Your task to perform on an android device: What's the weather going to be this weekend? Image 0: 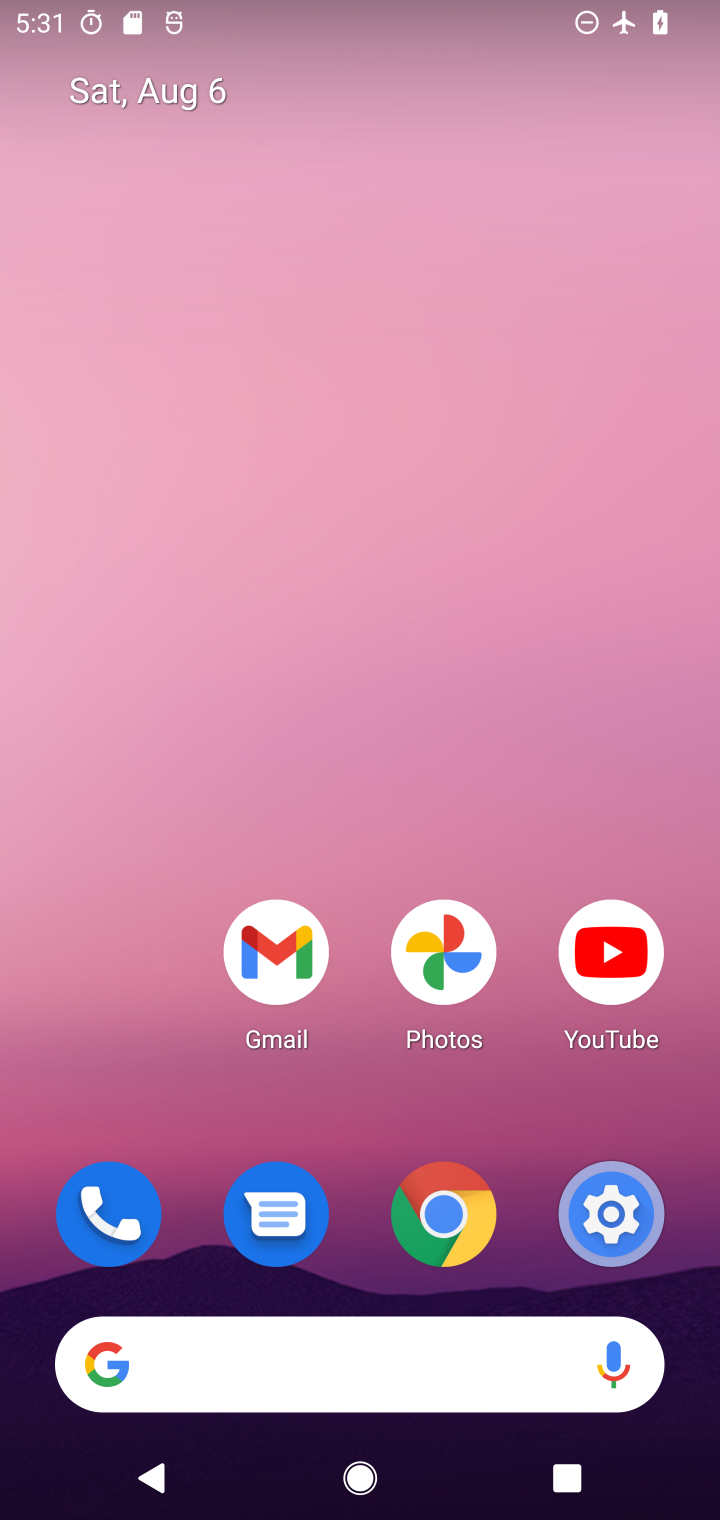
Step 0: drag from (354, 997) to (382, 535)
Your task to perform on an android device: What's the weather going to be this weekend? Image 1: 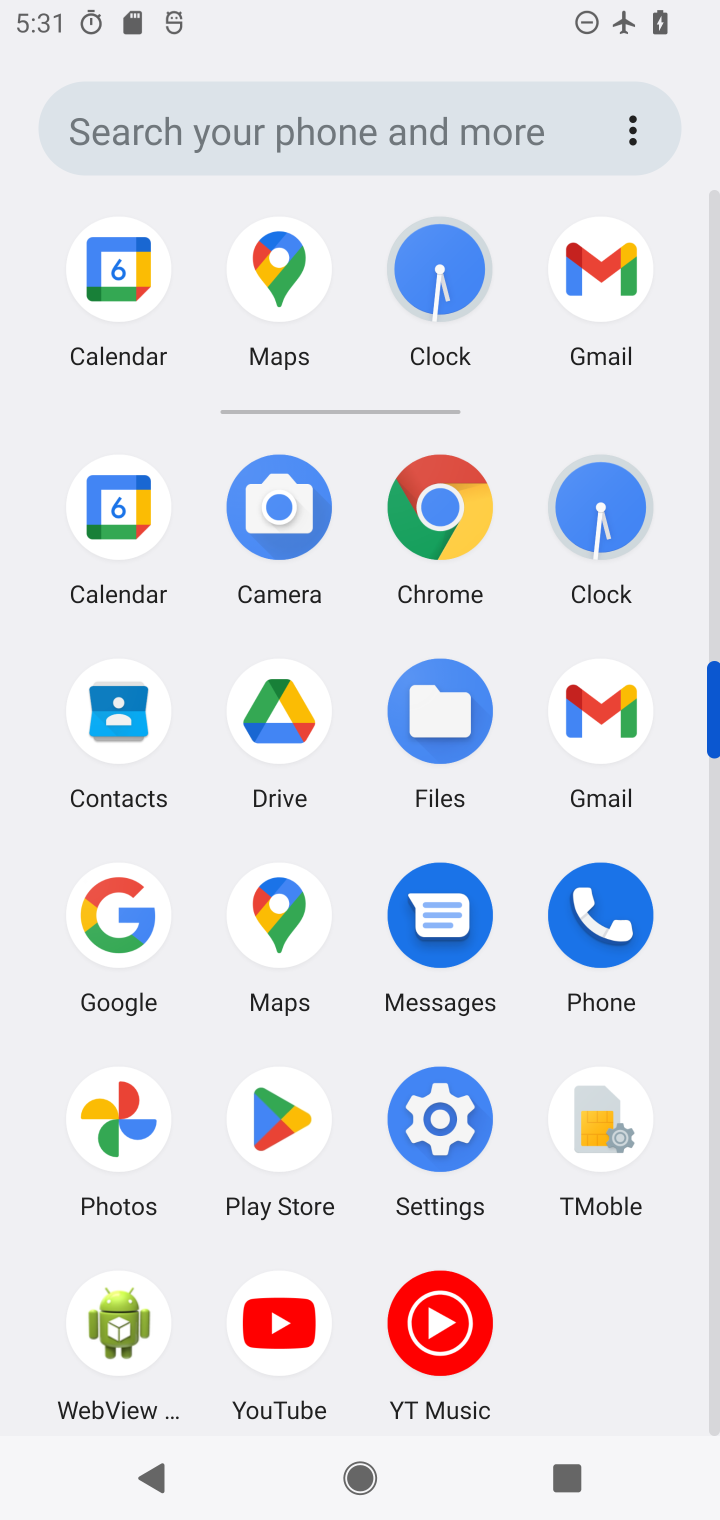
Step 1: click (121, 940)
Your task to perform on an android device: What's the weather going to be this weekend? Image 2: 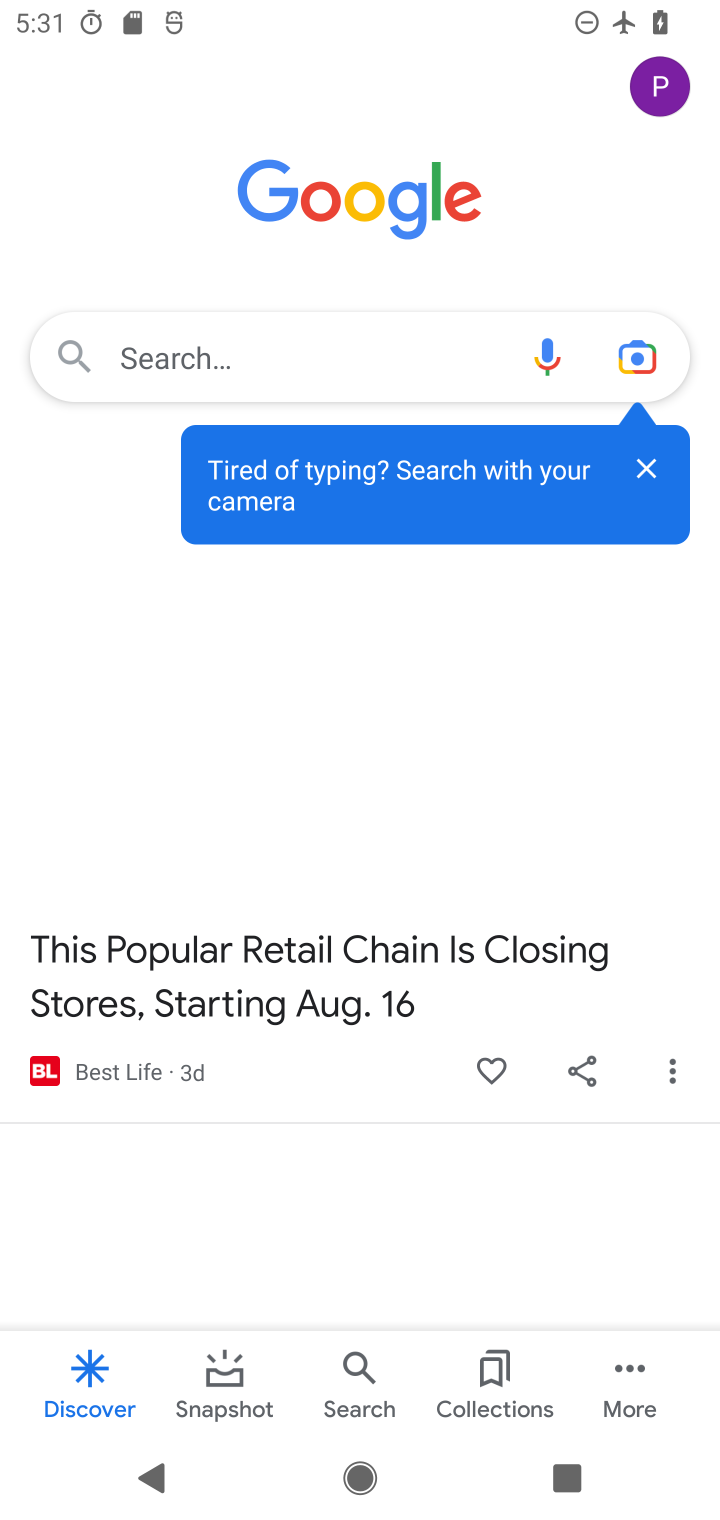
Step 2: click (257, 346)
Your task to perform on an android device: What's the weather going to be this weekend? Image 3: 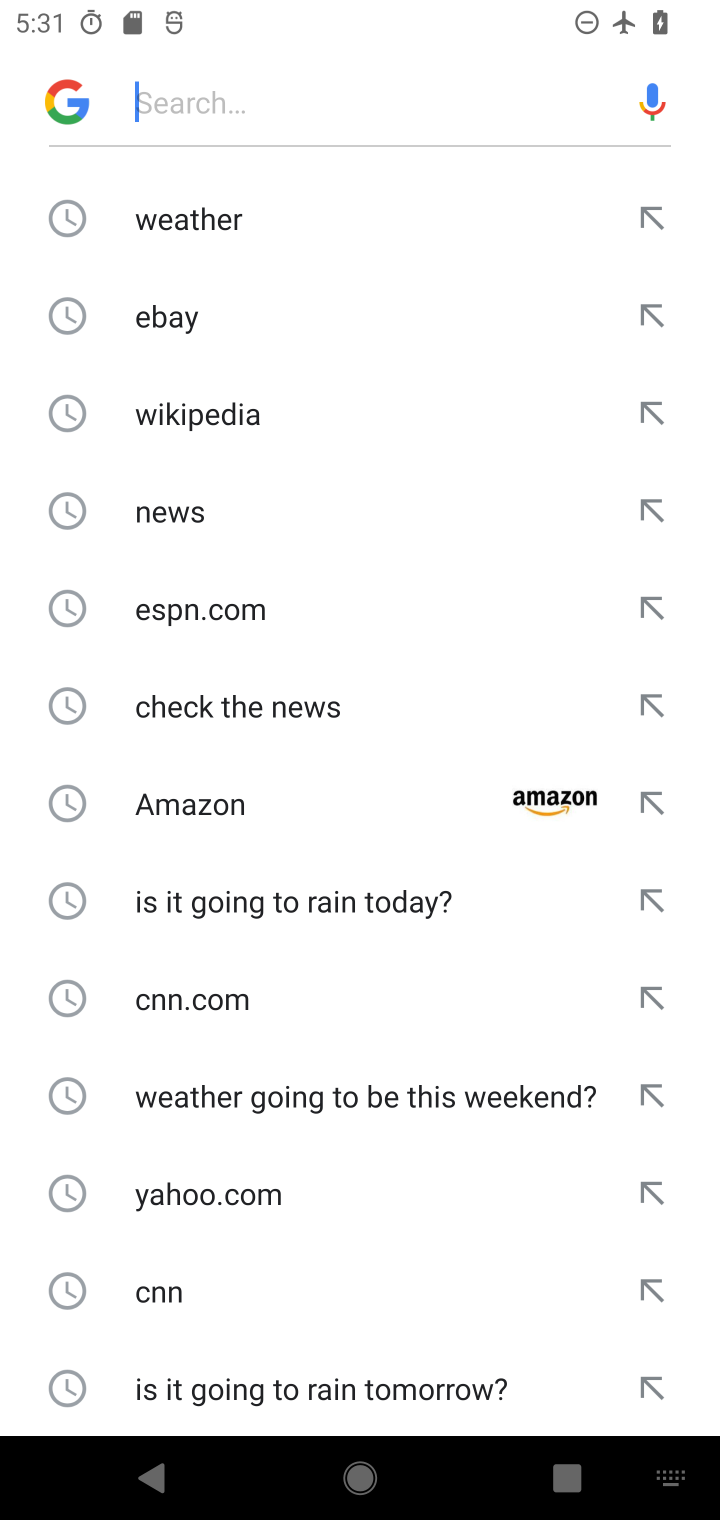
Step 3: click (196, 241)
Your task to perform on an android device: What's the weather going to be this weekend? Image 4: 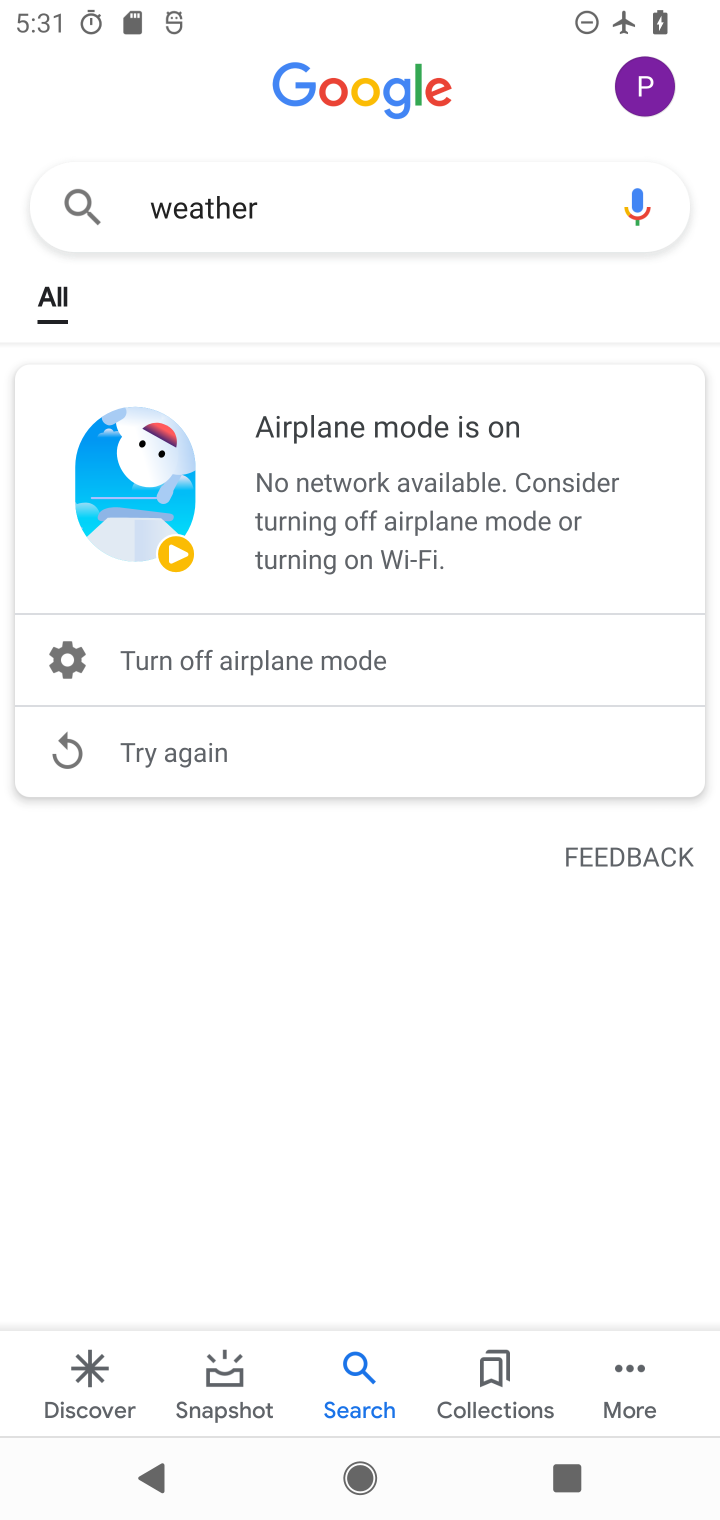
Step 4: press back button
Your task to perform on an android device: What's the weather going to be this weekend? Image 5: 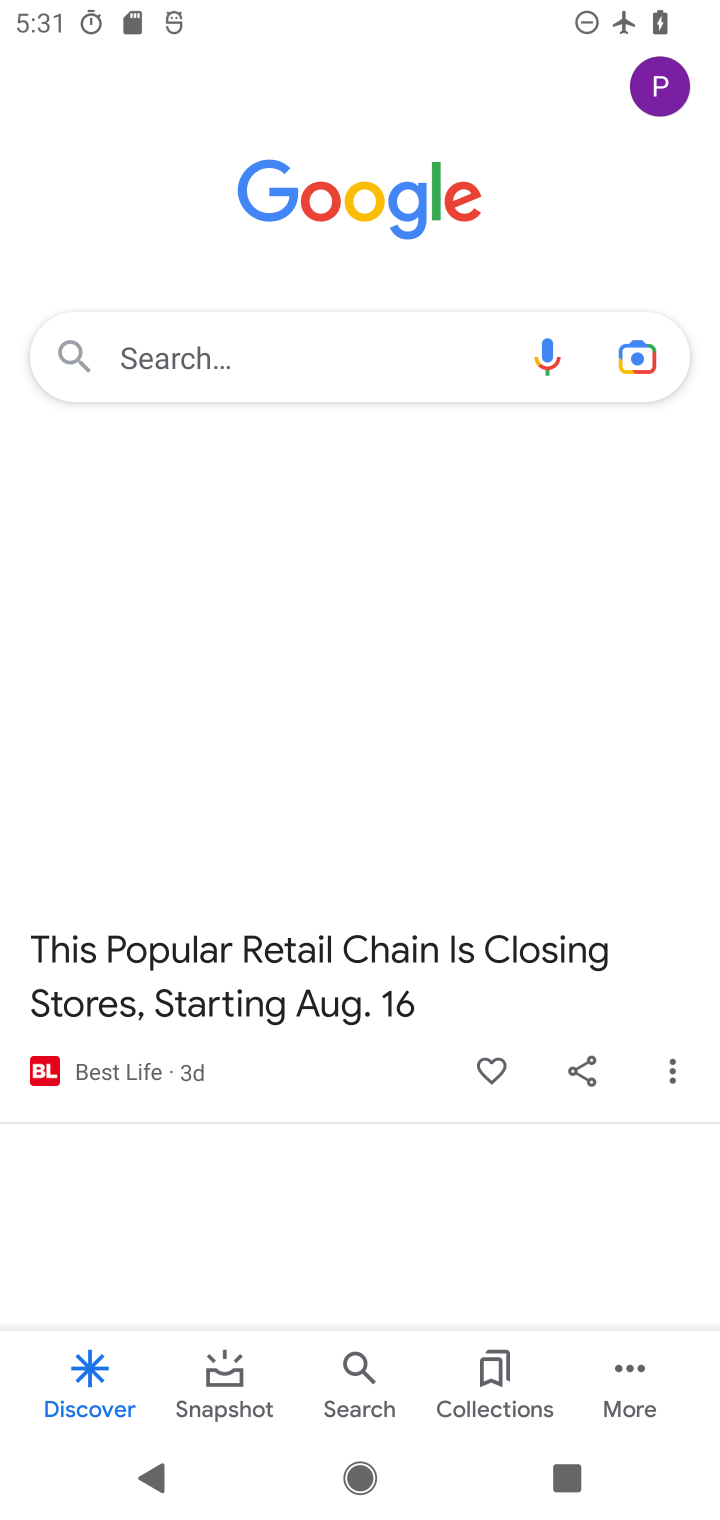
Step 5: press back button
Your task to perform on an android device: What's the weather going to be this weekend? Image 6: 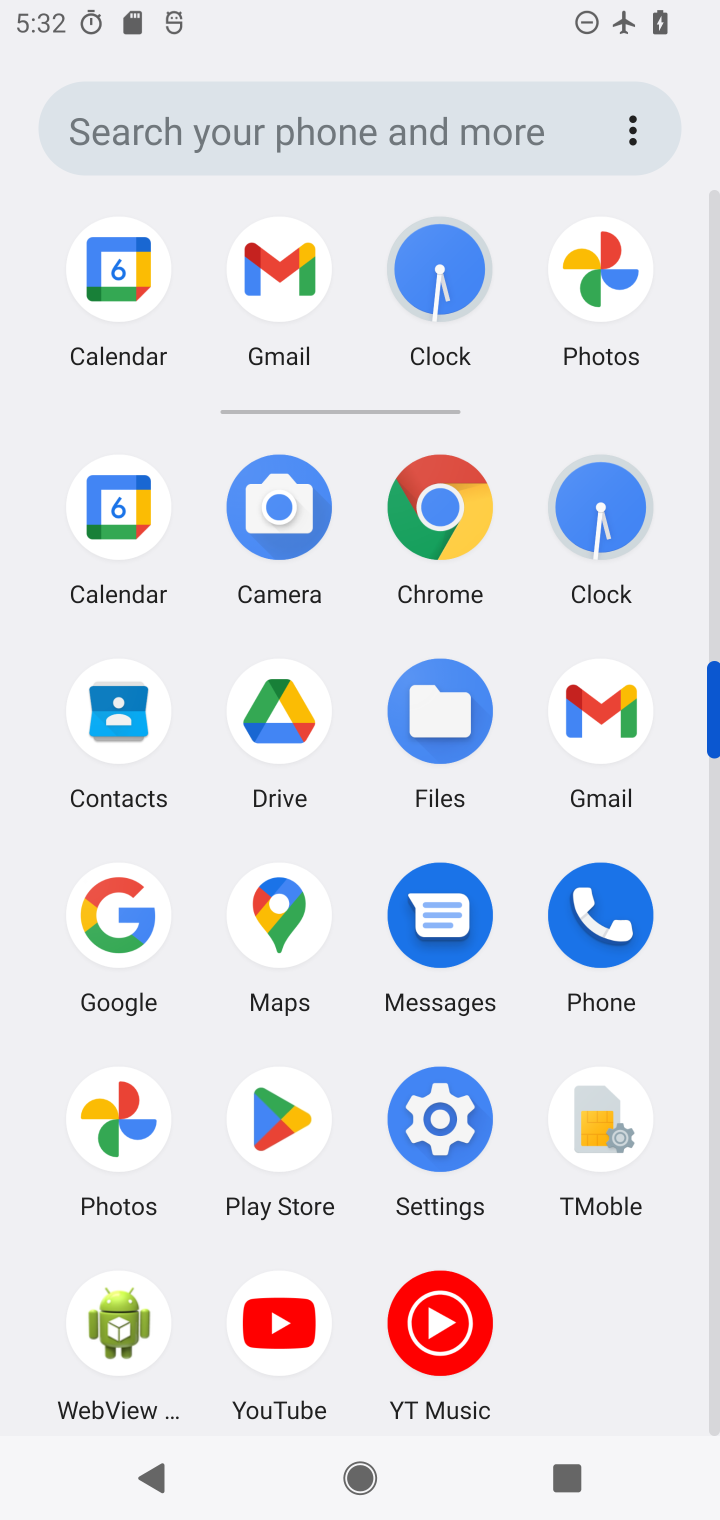
Step 6: click (421, 1128)
Your task to perform on an android device: What's the weather going to be this weekend? Image 7: 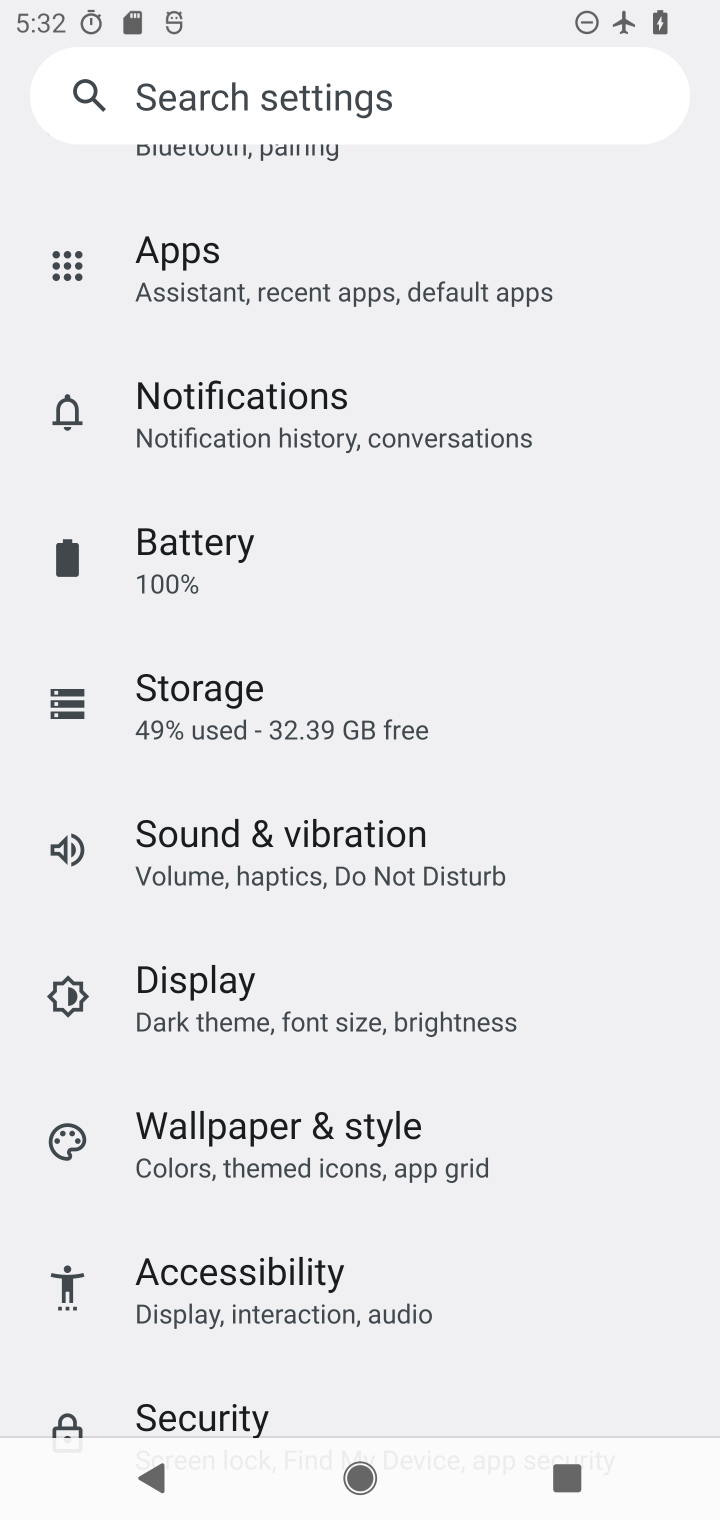
Step 7: drag from (372, 1346) to (382, 1461)
Your task to perform on an android device: What's the weather going to be this weekend? Image 8: 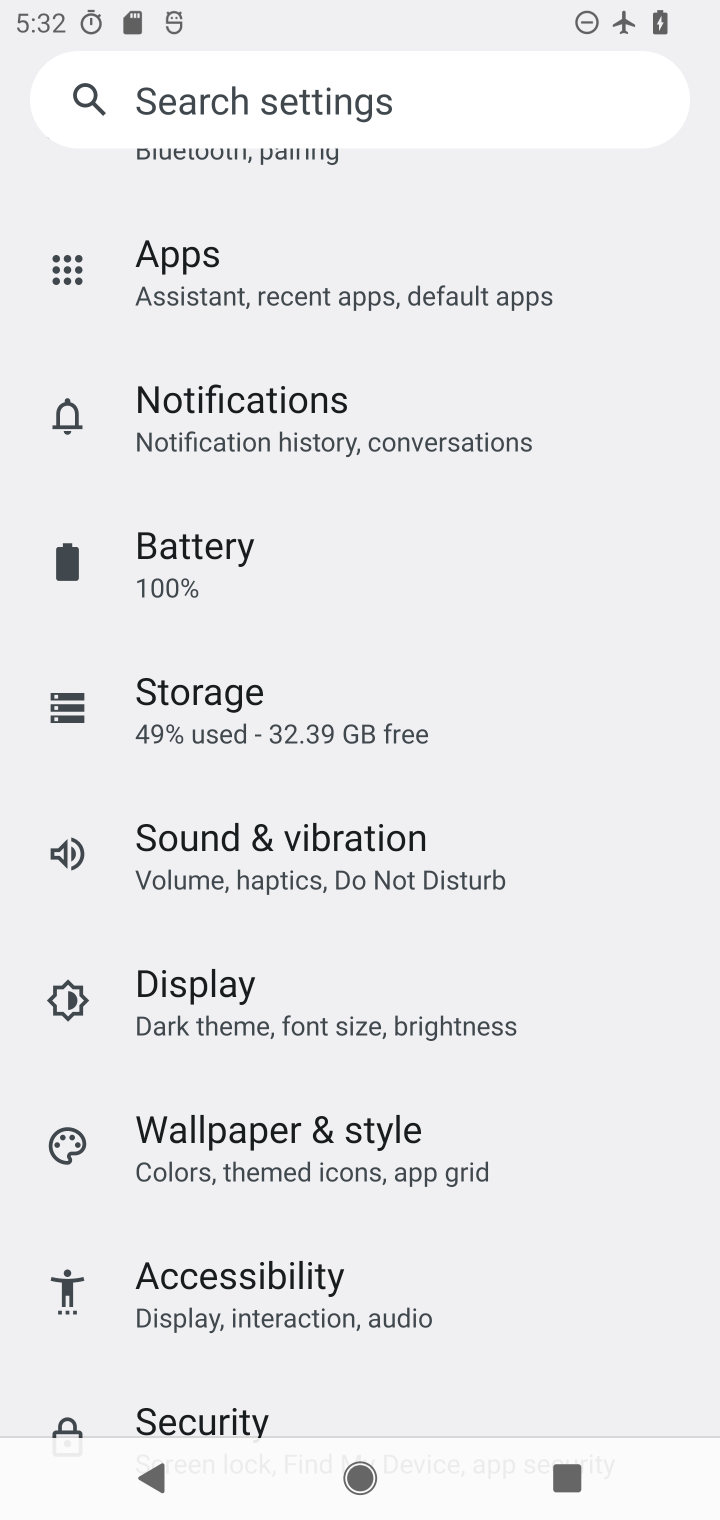
Step 8: drag from (467, 1226) to (465, 1492)
Your task to perform on an android device: What's the weather going to be this weekend? Image 9: 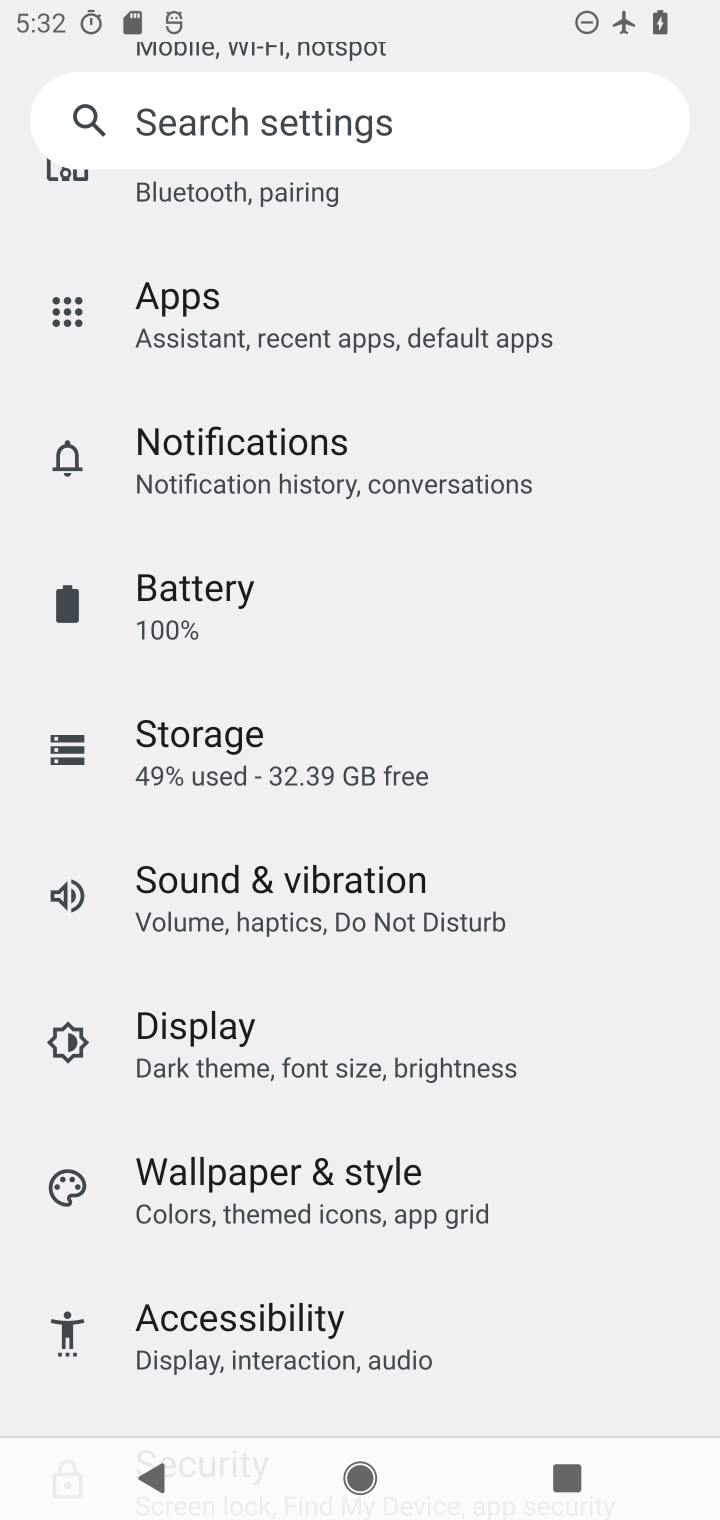
Step 9: drag from (325, 392) to (459, 1339)
Your task to perform on an android device: What's the weather going to be this weekend? Image 10: 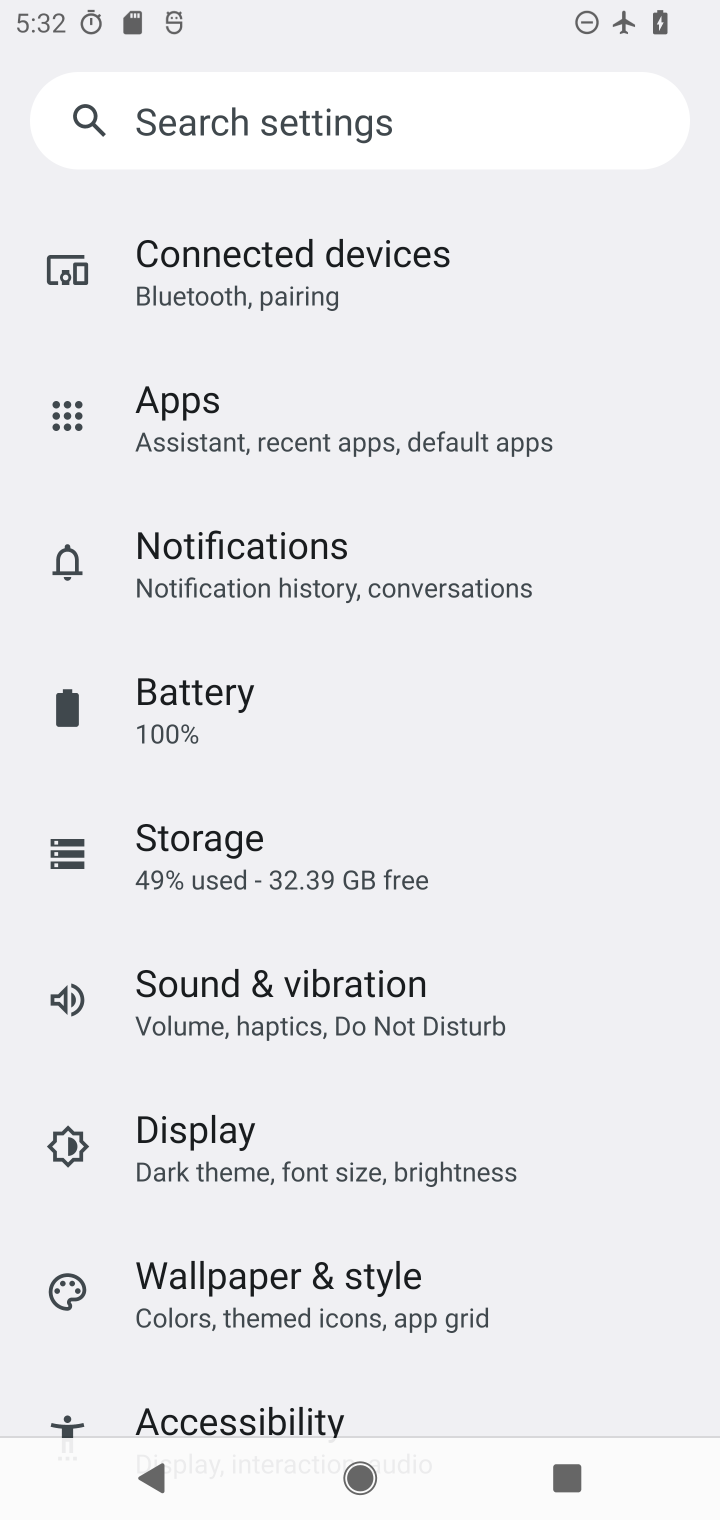
Step 10: drag from (385, 422) to (337, 1294)
Your task to perform on an android device: What's the weather going to be this weekend? Image 11: 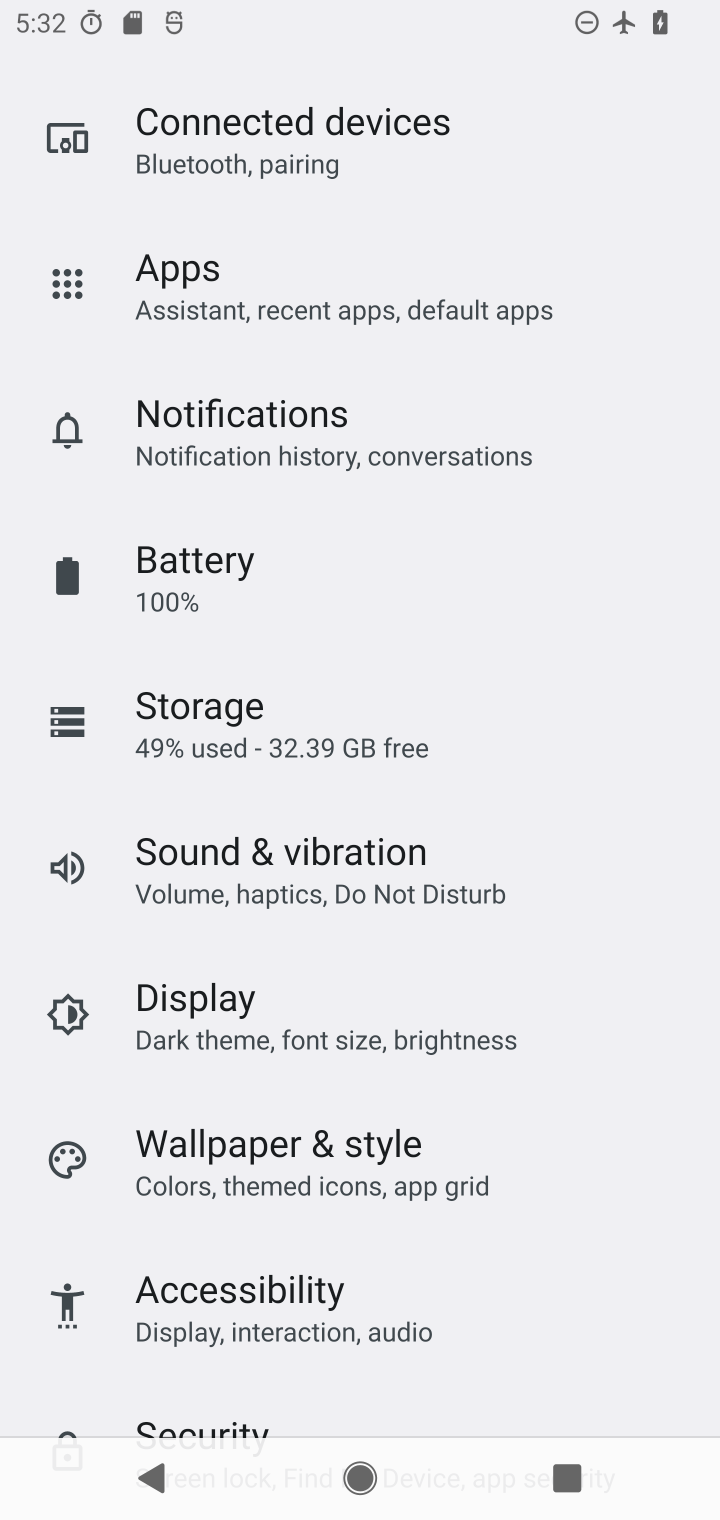
Step 11: drag from (287, 407) to (375, 1492)
Your task to perform on an android device: What's the weather going to be this weekend? Image 12: 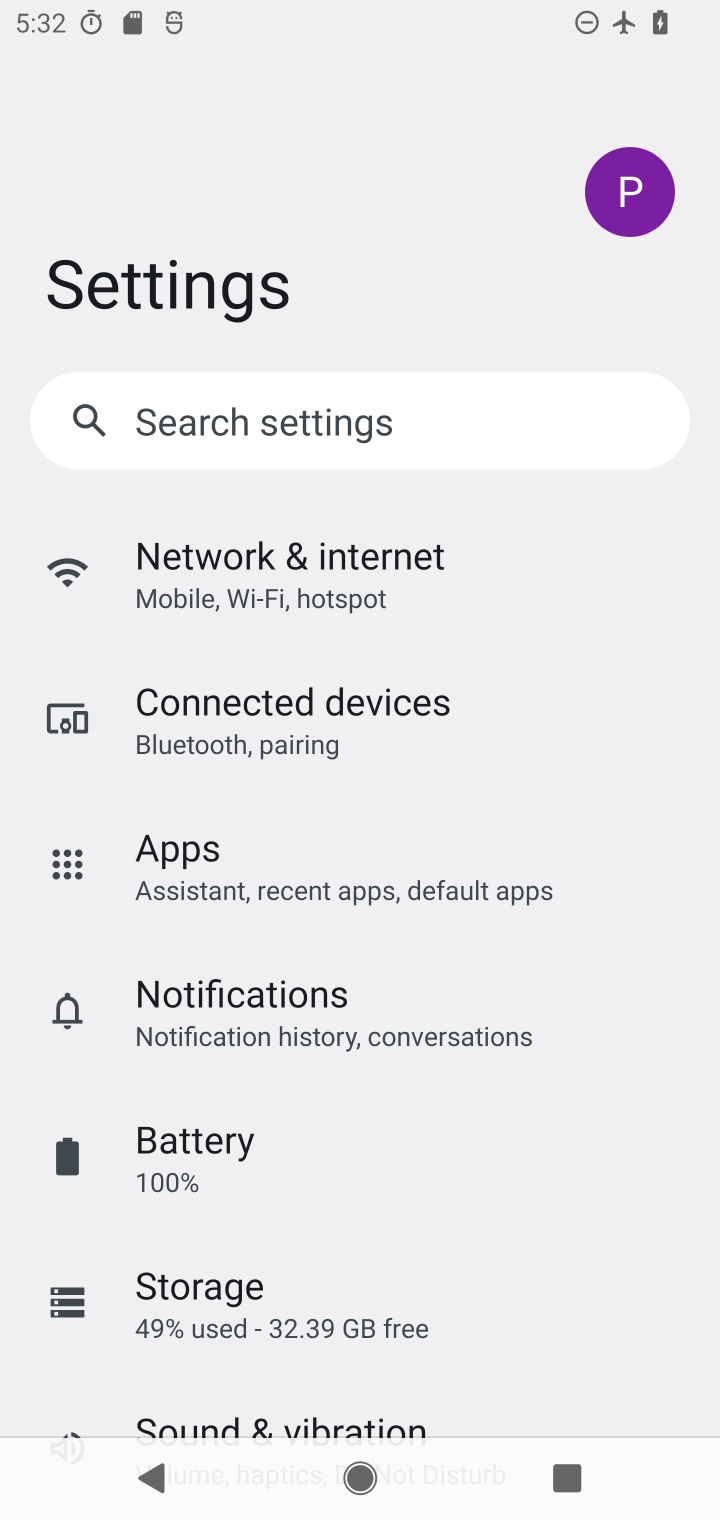
Step 12: click (264, 569)
Your task to perform on an android device: What's the weather going to be this weekend? Image 13: 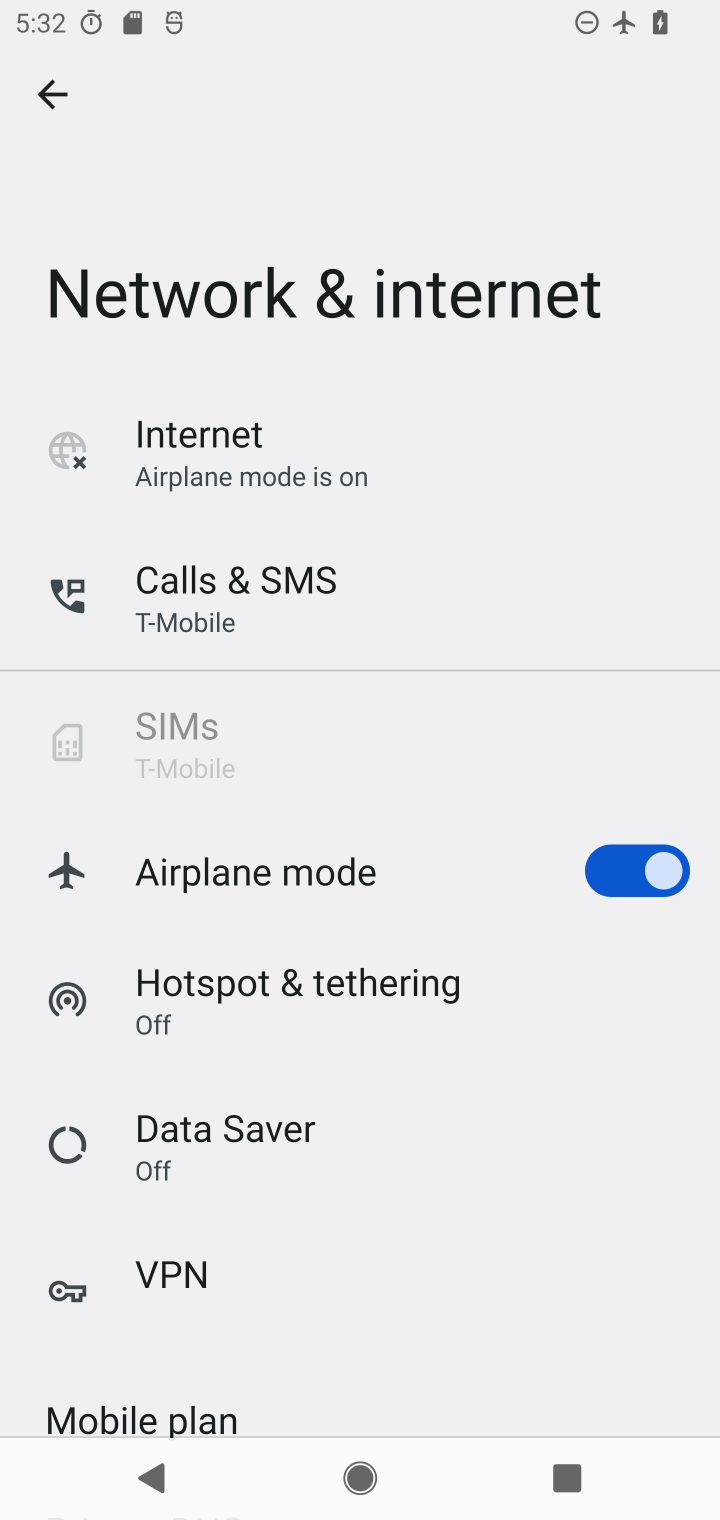
Step 13: click (588, 886)
Your task to perform on an android device: What's the weather going to be this weekend? Image 14: 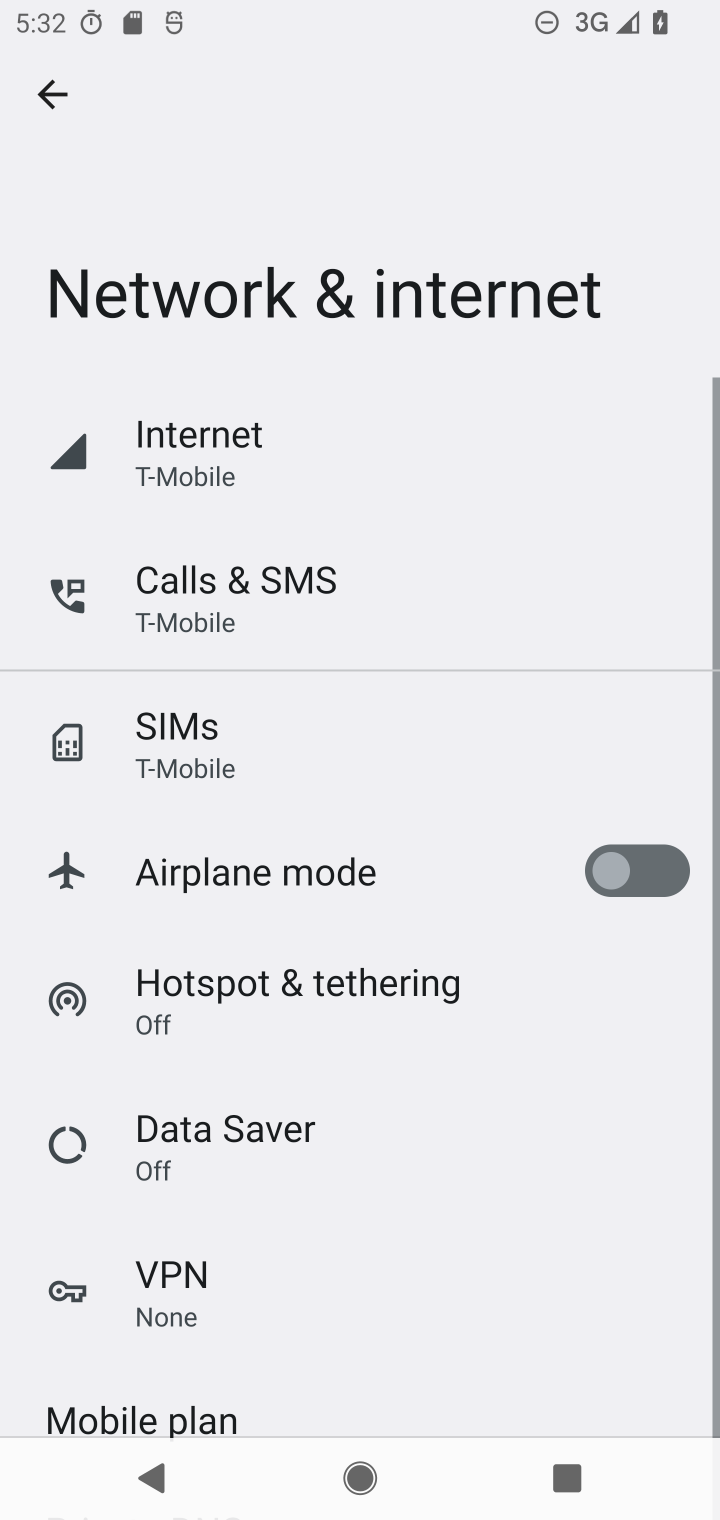
Step 14: press home button
Your task to perform on an android device: What's the weather going to be this weekend? Image 15: 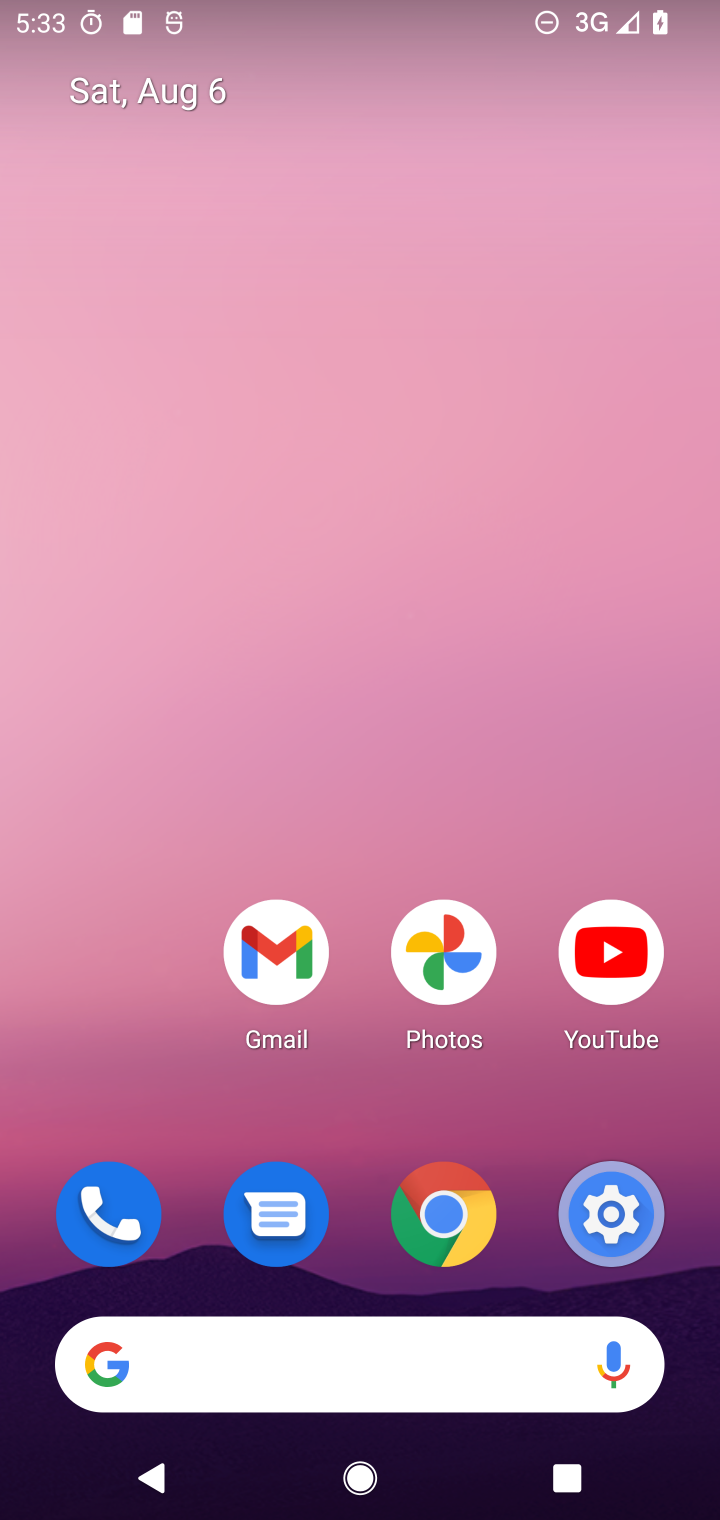
Step 15: click (259, 1386)
Your task to perform on an android device: What's the weather going to be this weekend? Image 16: 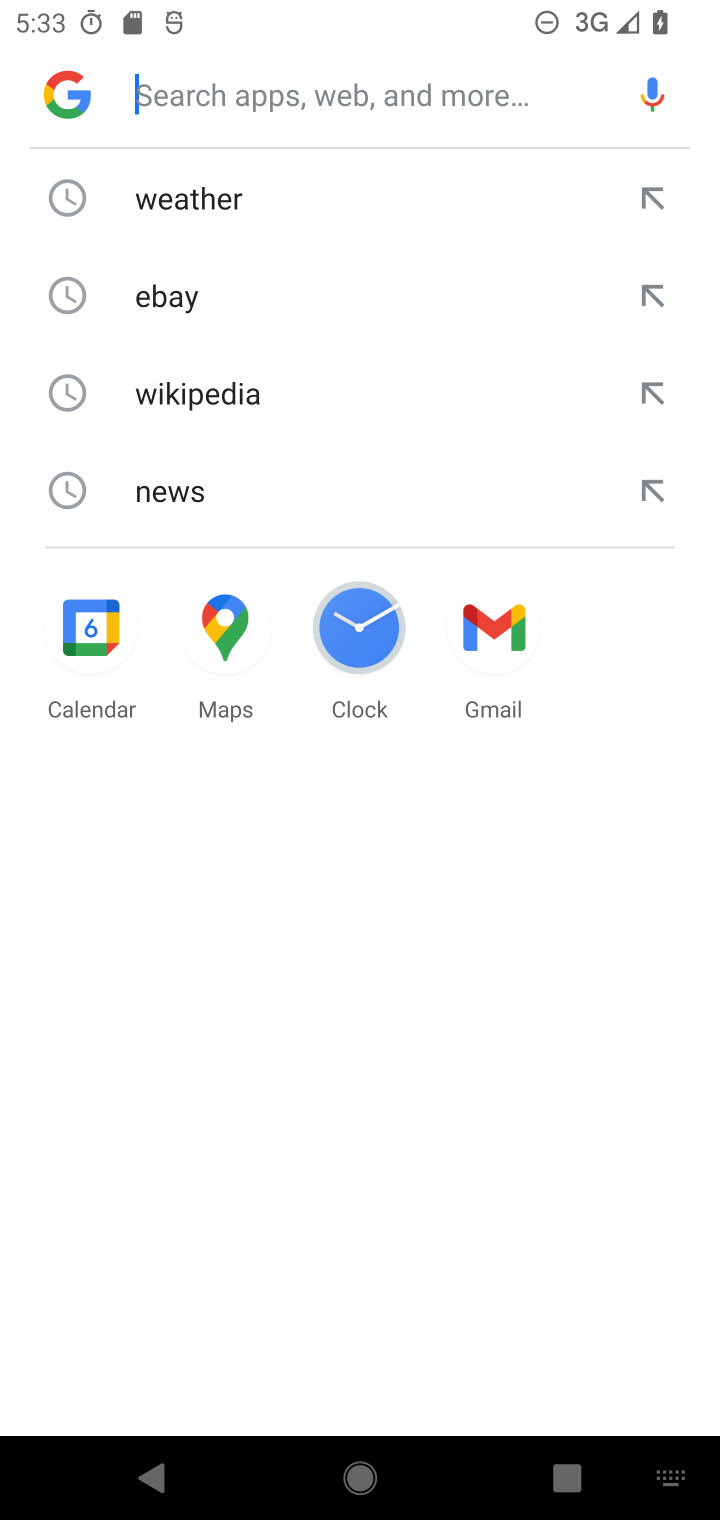
Step 16: click (182, 207)
Your task to perform on an android device: What's the weather going to be this weekend? Image 17: 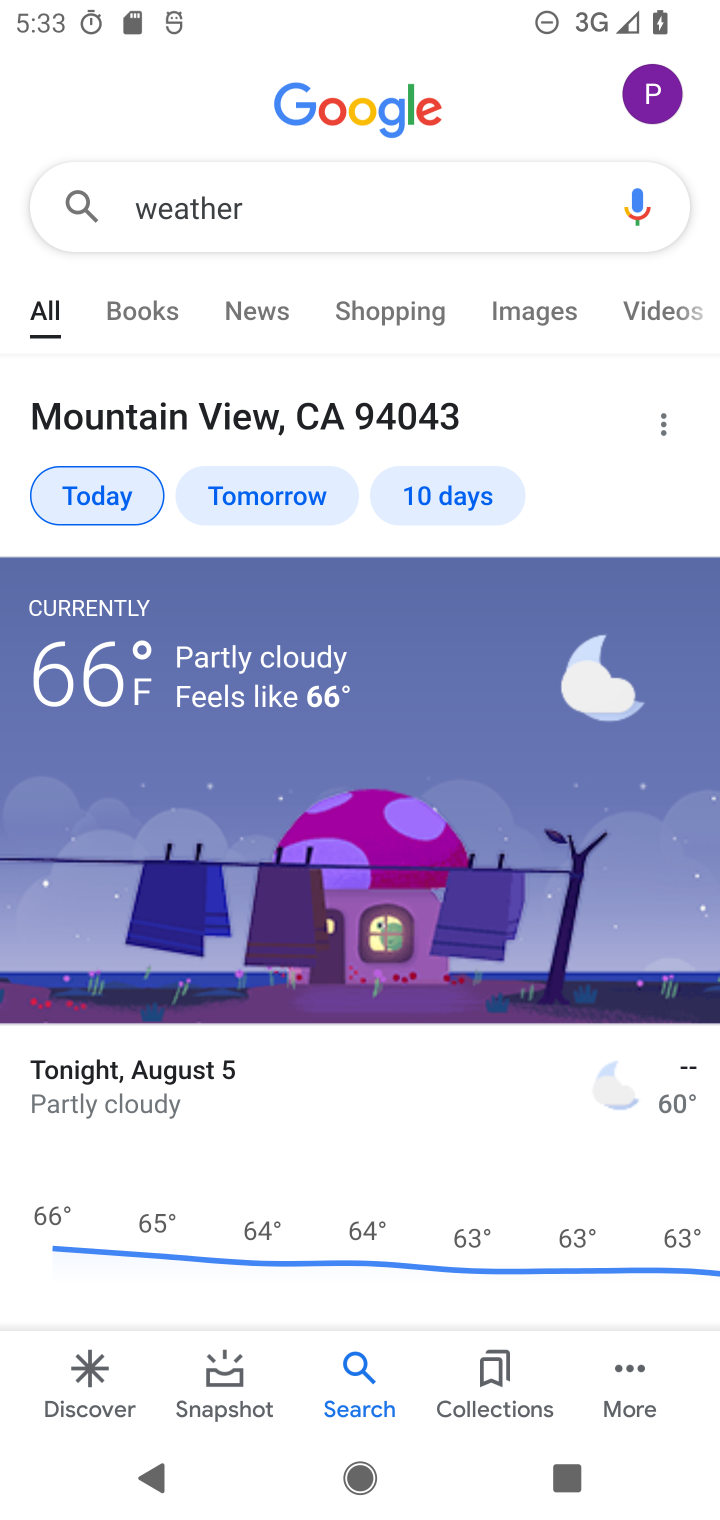
Step 17: click (466, 492)
Your task to perform on an android device: What's the weather going to be this weekend? Image 18: 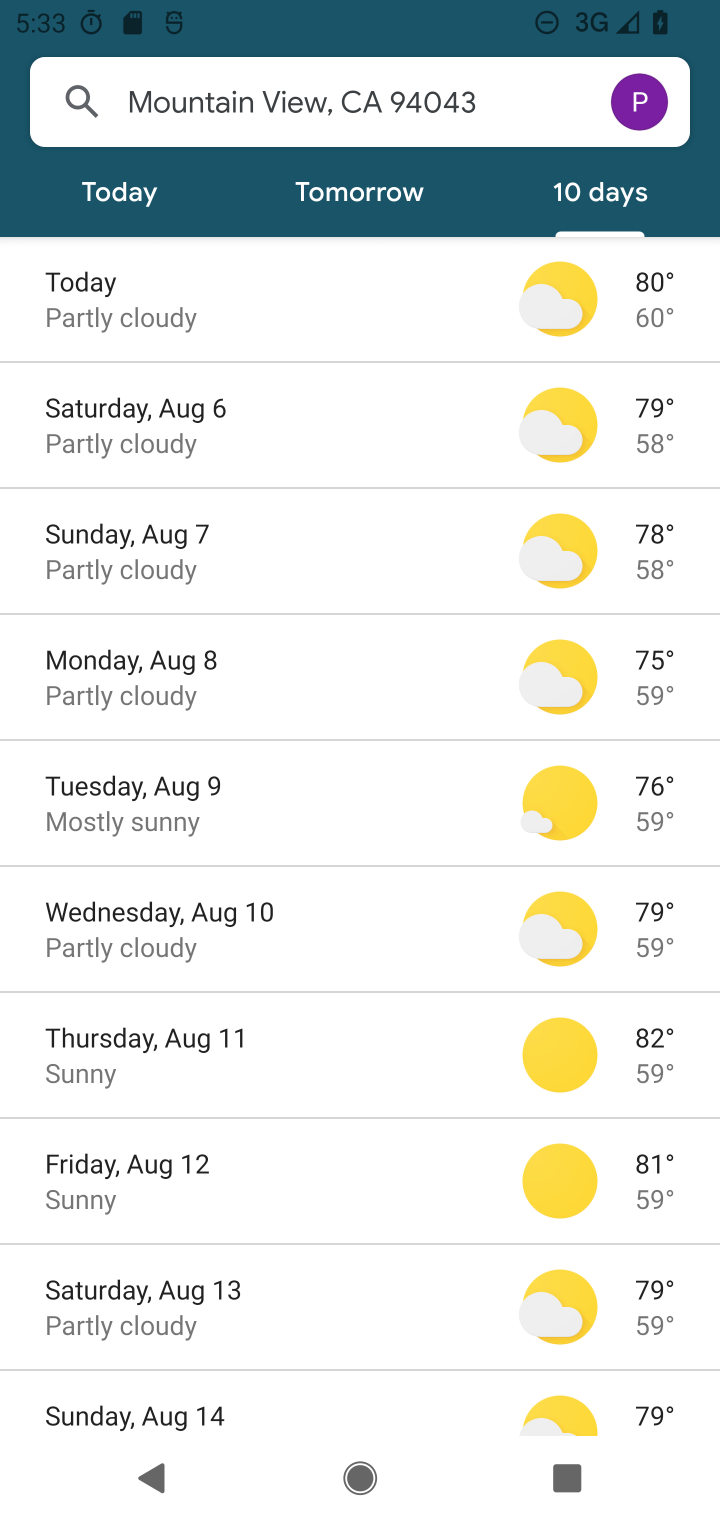
Step 18: task complete